Your task to perform on an android device: snooze an email in the gmail app Image 0: 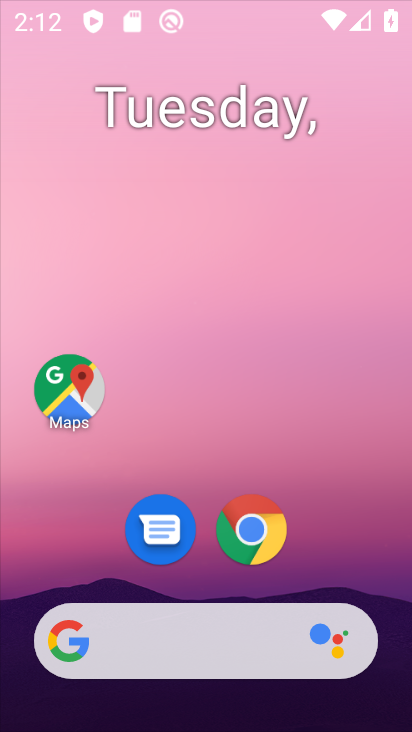
Step 0: click (281, 78)
Your task to perform on an android device: snooze an email in the gmail app Image 1: 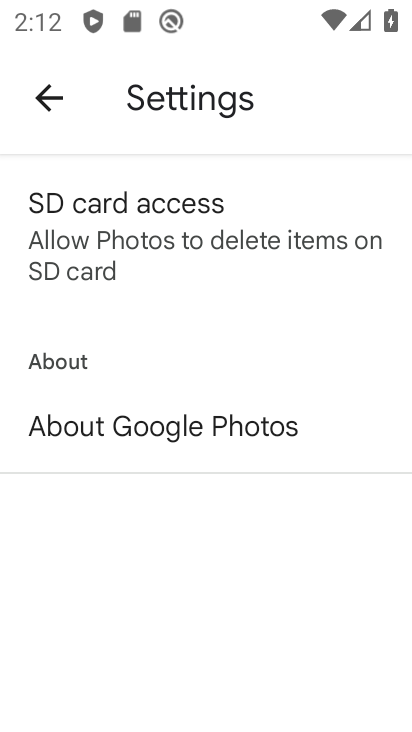
Step 1: press home button
Your task to perform on an android device: snooze an email in the gmail app Image 2: 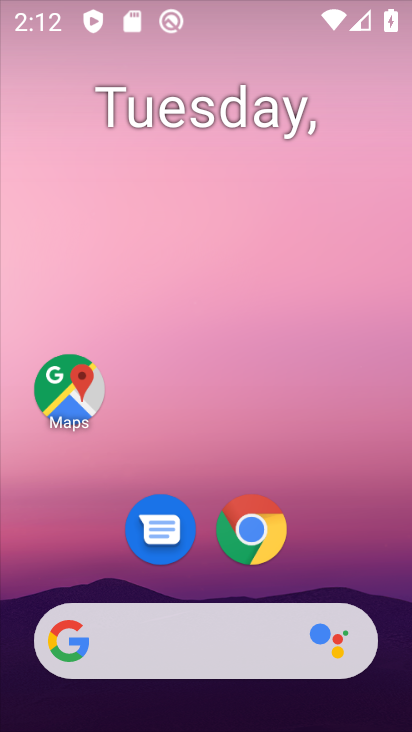
Step 2: drag from (396, 639) to (270, 182)
Your task to perform on an android device: snooze an email in the gmail app Image 3: 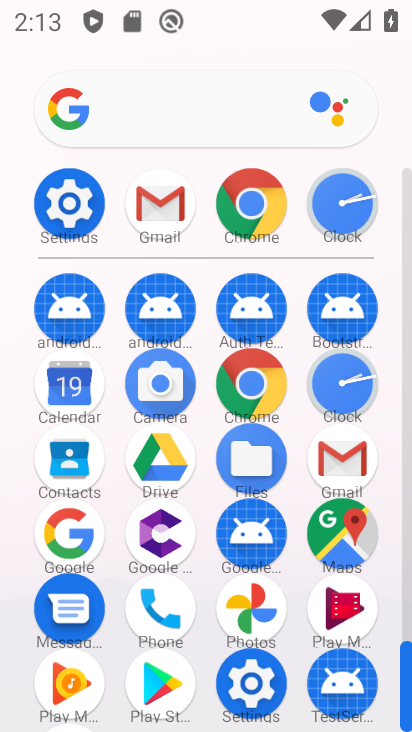
Step 3: click (337, 464)
Your task to perform on an android device: snooze an email in the gmail app Image 4: 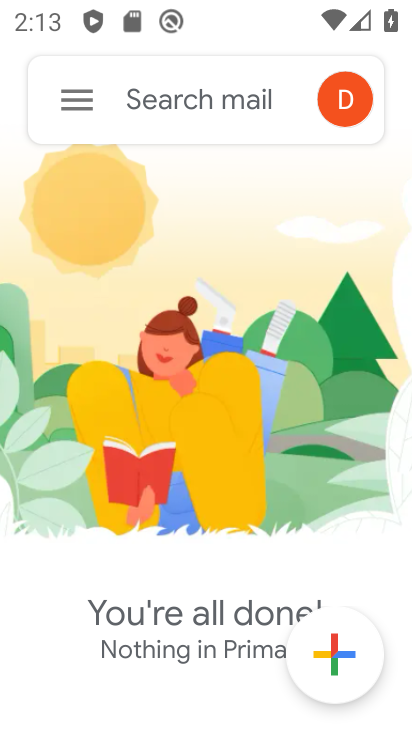
Step 4: task complete